Your task to perform on an android device: toggle pop-ups in chrome Image 0: 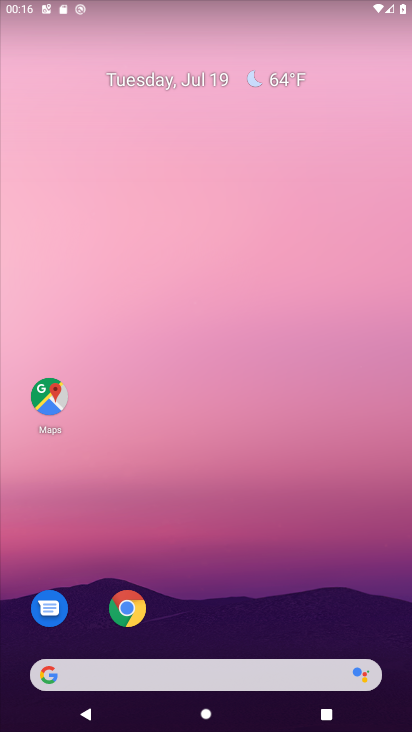
Step 0: drag from (242, 545) to (186, 5)
Your task to perform on an android device: toggle pop-ups in chrome Image 1: 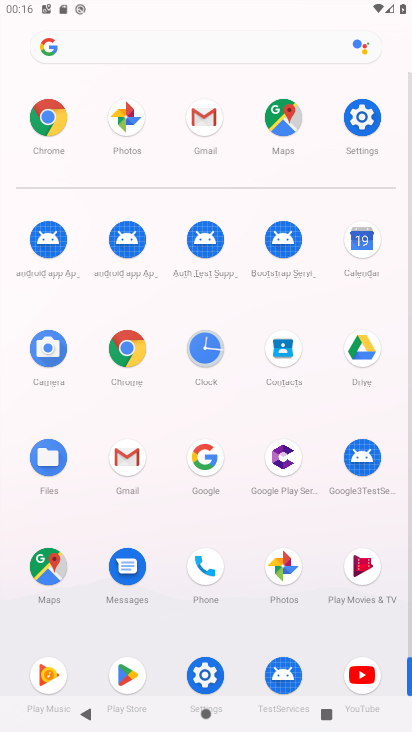
Step 1: click (135, 355)
Your task to perform on an android device: toggle pop-ups in chrome Image 2: 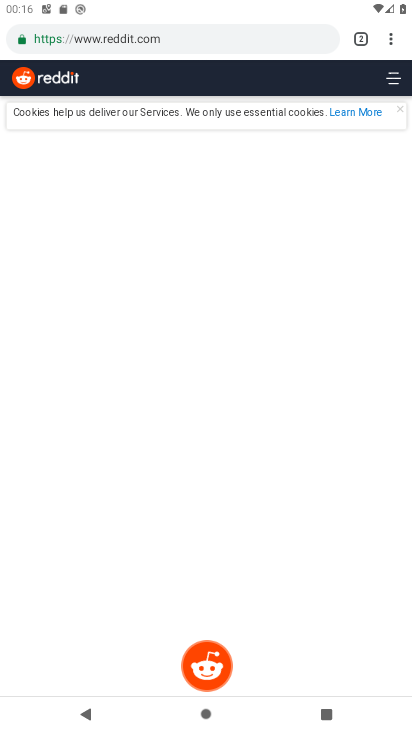
Step 2: click (390, 45)
Your task to perform on an android device: toggle pop-ups in chrome Image 3: 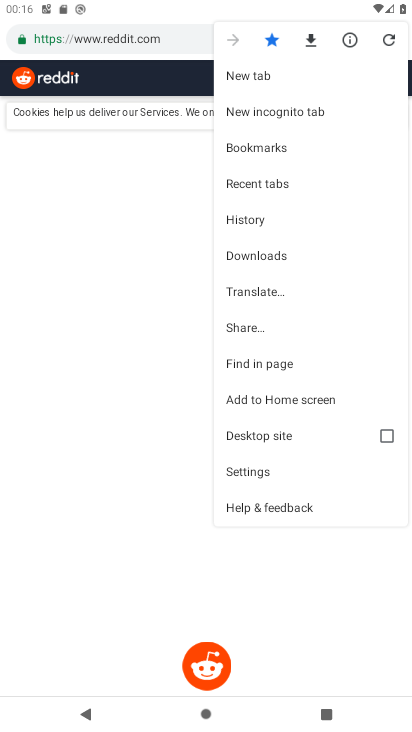
Step 3: click (271, 481)
Your task to perform on an android device: toggle pop-ups in chrome Image 4: 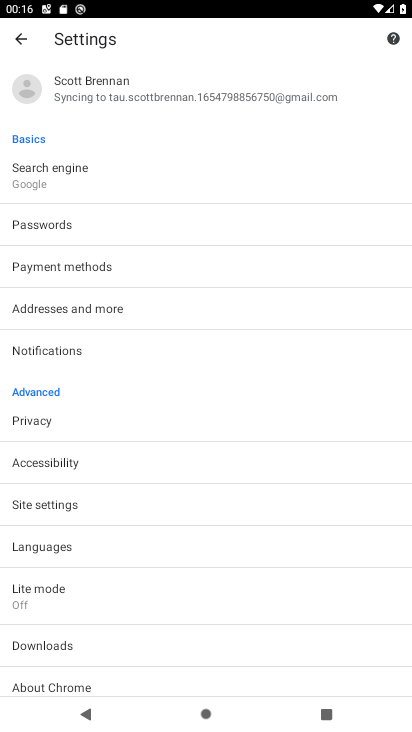
Step 4: click (106, 503)
Your task to perform on an android device: toggle pop-ups in chrome Image 5: 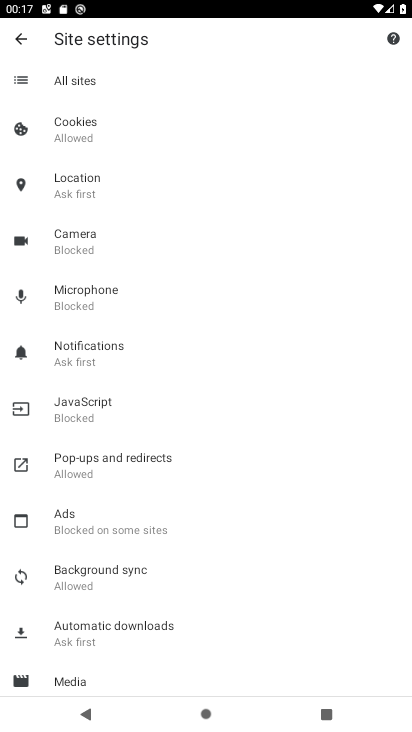
Step 5: click (99, 472)
Your task to perform on an android device: toggle pop-ups in chrome Image 6: 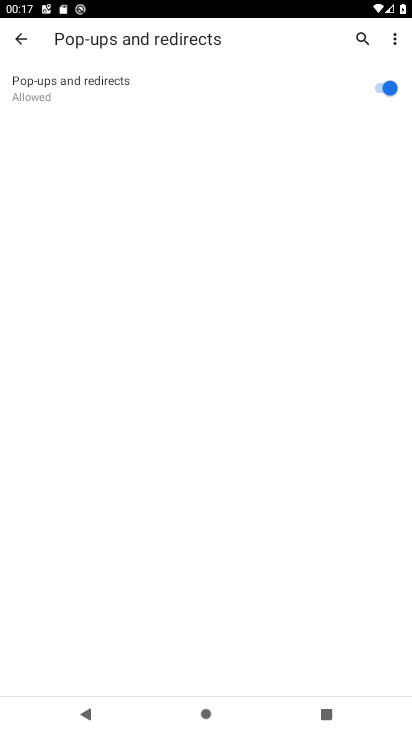
Step 6: click (380, 93)
Your task to perform on an android device: toggle pop-ups in chrome Image 7: 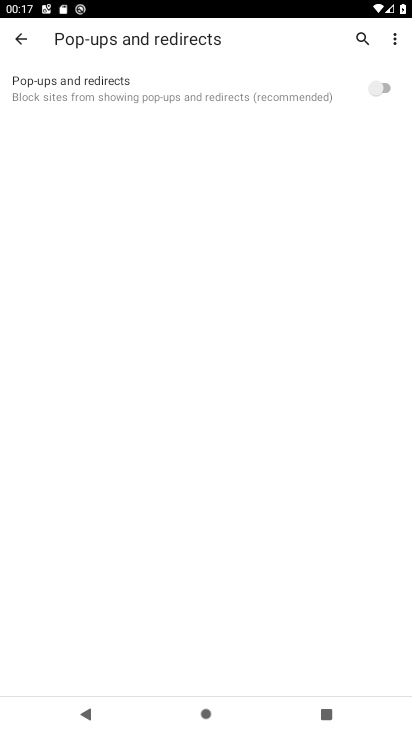
Step 7: click (374, 90)
Your task to perform on an android device: toggle pop-ups in chrome Image 8: 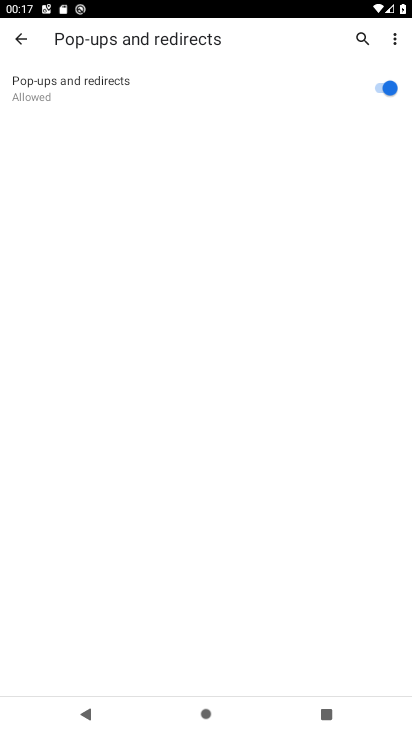
Step 8: task complete